Your task to perform on an android device: Open Google Chrome and open the bookmarks view Image 0: 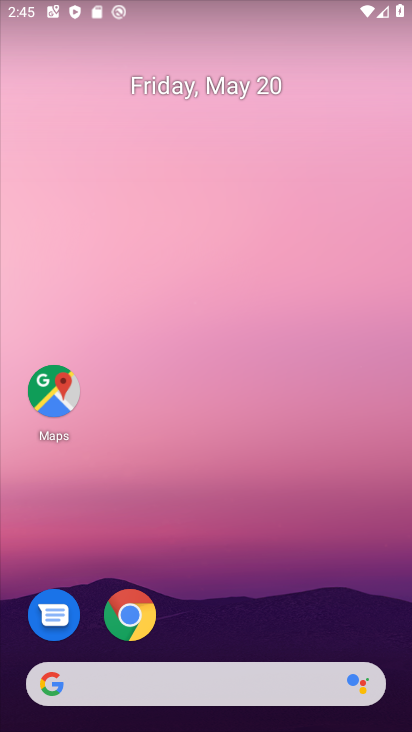
Step 0: drag from (321, 596) to (287, 187)
Your task to perform on an android device: Open Google Chrome and open the bookmarks view Image 1: 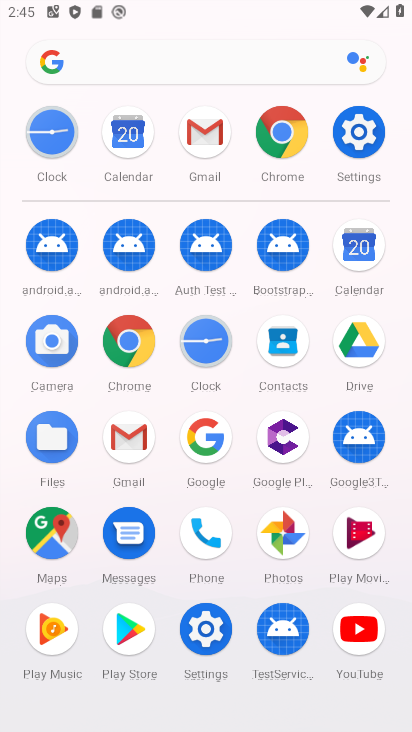
Step 1: click (121, 342)
Your task to perform on an android device: Open Google Chrome and open the bookmarks view Image 2: 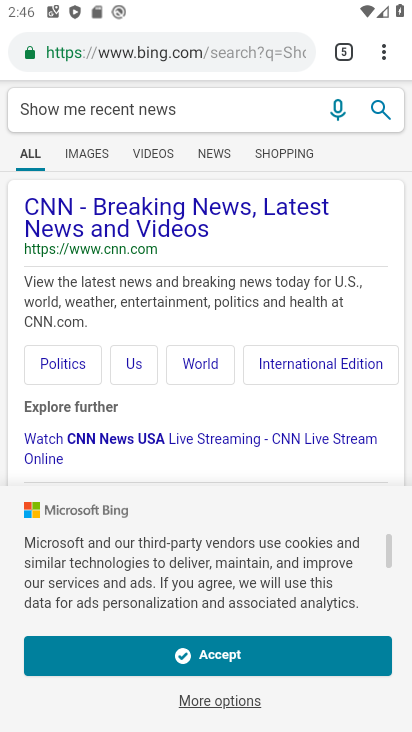
Step 2: click (389, 49)
Your task to perform on an android device: Open Google Chrome and open the bookmarks view Image 3: 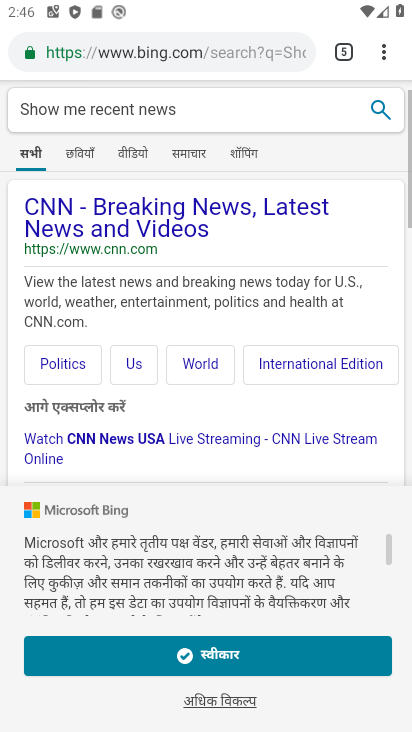
Step 3: click (379, 43)
Your task to perform on an android device: Open Google Chrome and open the bookmarks view Image 4: 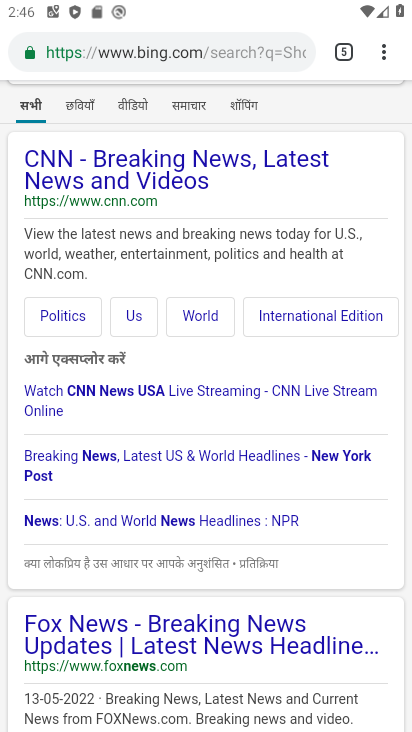
Step 4: click (381, 47)
Your task to perform on an android device: Open Google Chrome and open the bookmarks view Image 5: 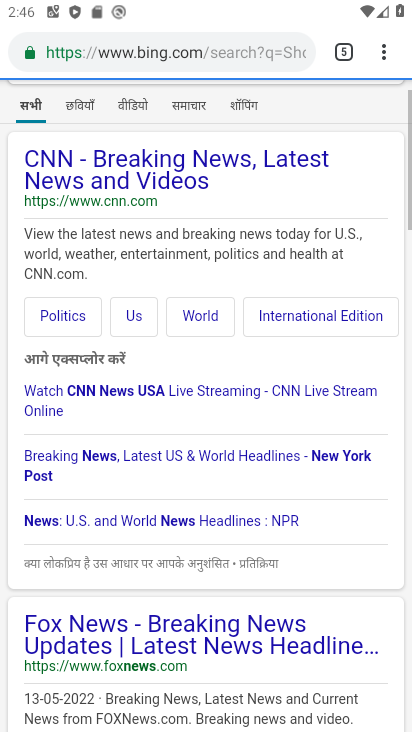
Step 5: click (381, 47)
Your task to perform on an android device: Open Google Chrome and open the bookmarks view Image 6: 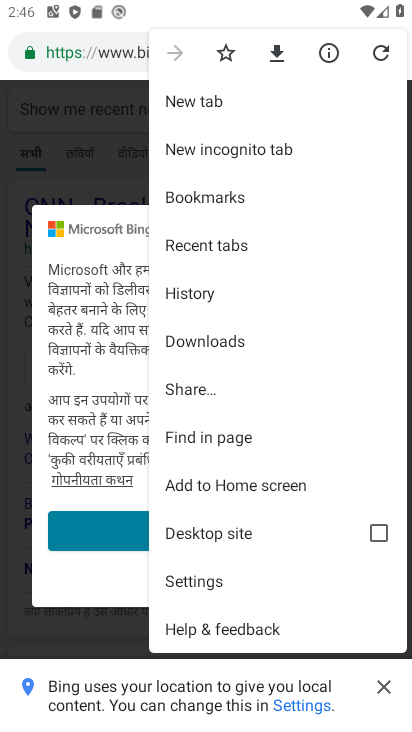
Step 6: click (222, 199)
Your task to perform on an android device: Open Google Chrome and open the bookmarks view Image 7: 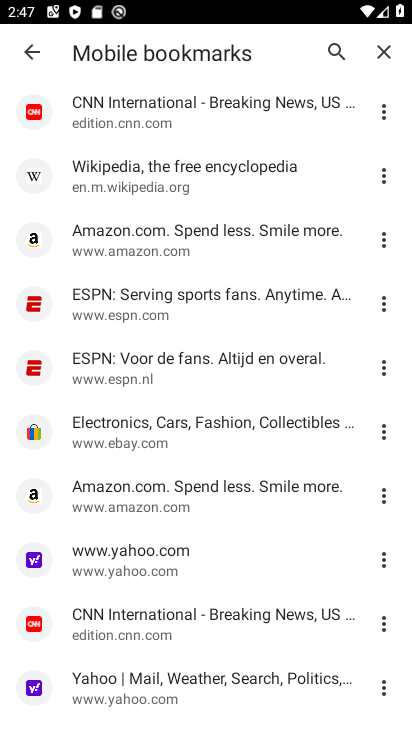
Step 7: task complete